Your task to perform on an android device: check storage Image 0: 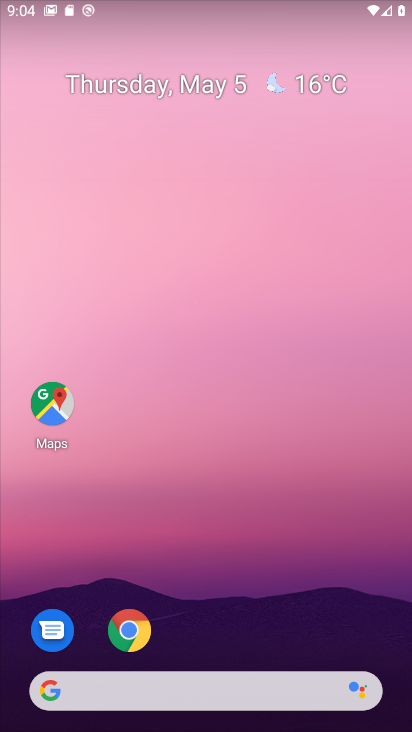
Step 0: drag from (236, 616) to (314, 35)
Your task to perform on an android device: check storage Image 1: 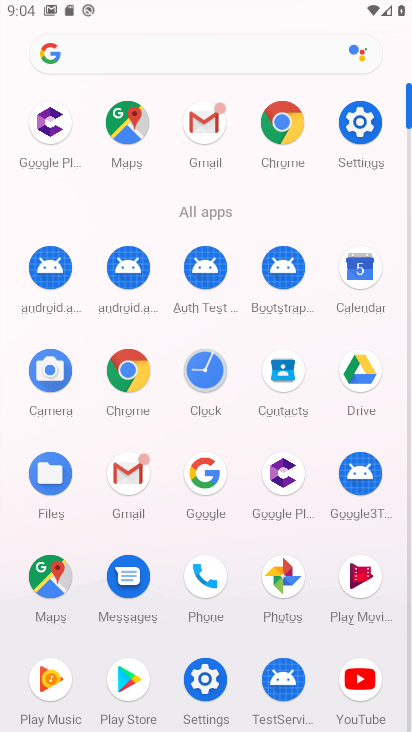
Step 1: click (360, 126)
Your task to perform on an android device: check storage Image 2: 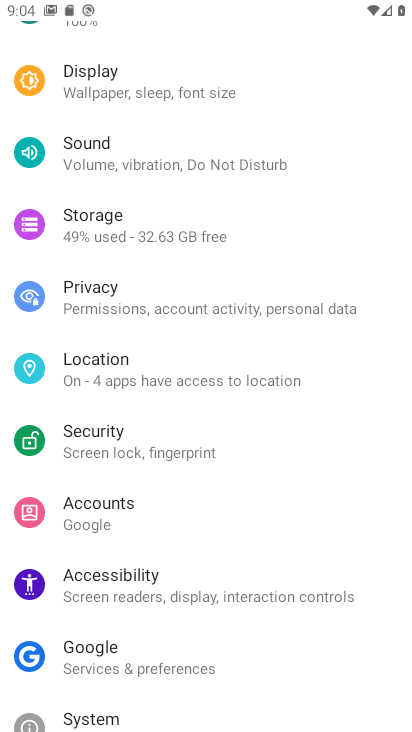
Step 2: click (133, 227)
Your task to perform on an android device: check storage Image 3: 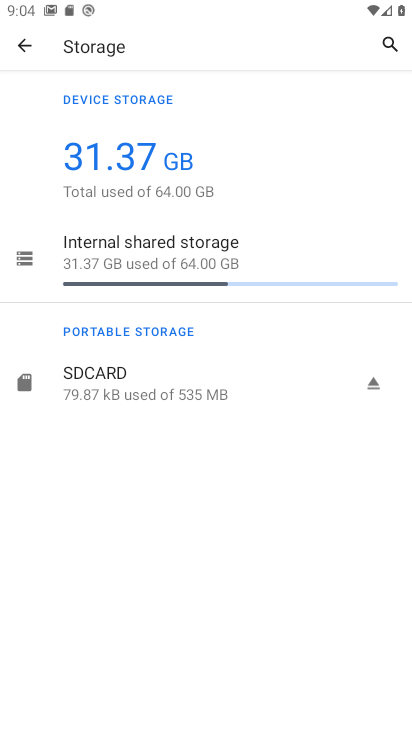
Step 3: click (141, 257)
Your task to perform on an android device: check storage Image 4: 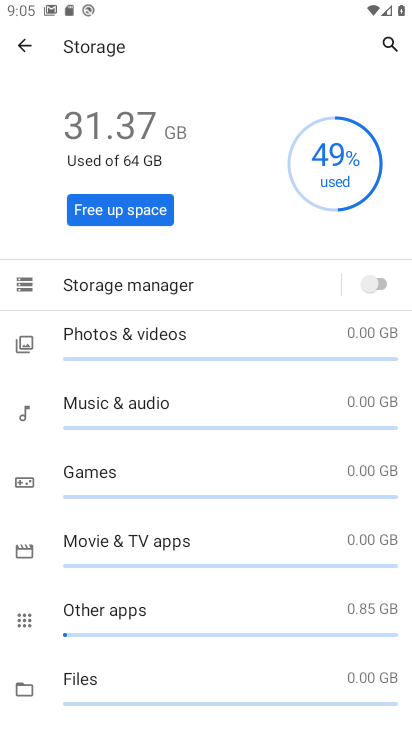
Step 4: task complete